Your task to perform on an android device: uninstall "Airtel Thanks" Image 0: 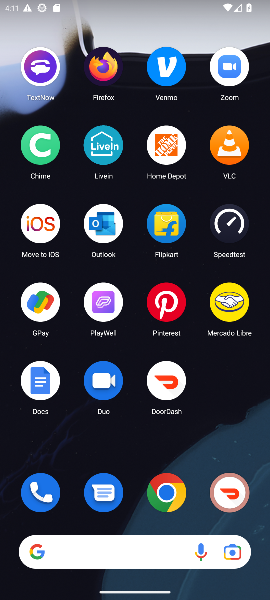
Step 0: drag from (138, 456) to (159, 98)
Your task to perform on an android device: uninstall "Airtel Thanks" Image 1: 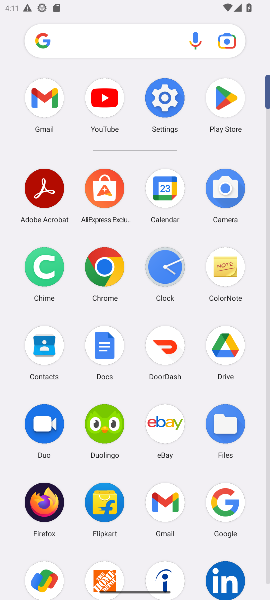
Step 1: click (238, 109)
Your task to perform on an android device: uninstall "Airtel Thanks" Image 2: 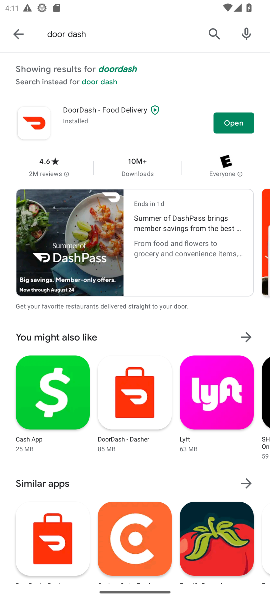
Step 2: click (211, 31)
Your task to perform on an android device: uninstall "Airtel Thanks" Image 3: 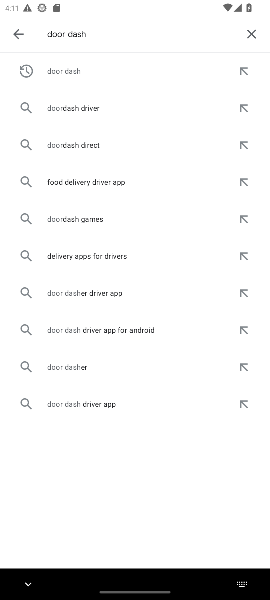
Step 3: click (254, 30)
Your task to perform on an android device: uninstall "Airtel Thanks" Image 4: 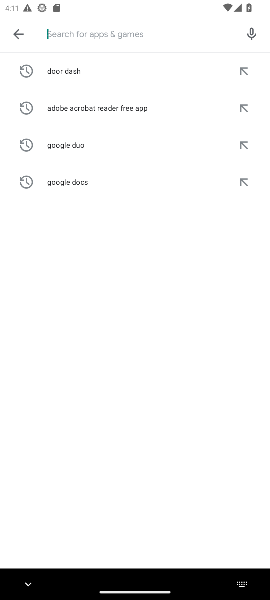
Step 4: type "airtel "
Your task to perform on an android device: uninstall "Airtel Thanks" Image 5: 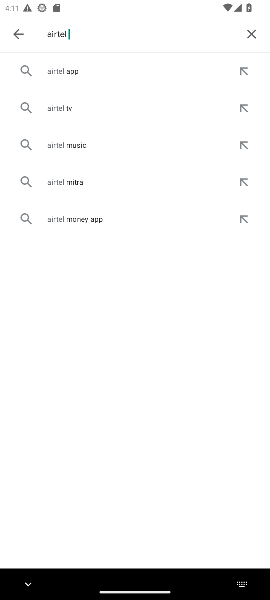
Step 5: click (107, 62)
Your task to perform on an android device: uninstall "Airtel Thanks" Image 6: 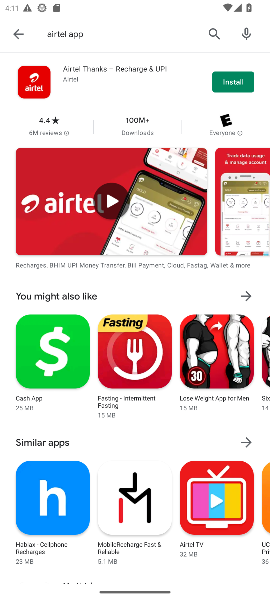
Step 6: click (217, 75)
Your task to perform on an android device: uninstall "Airtel Thanks" Image 7: 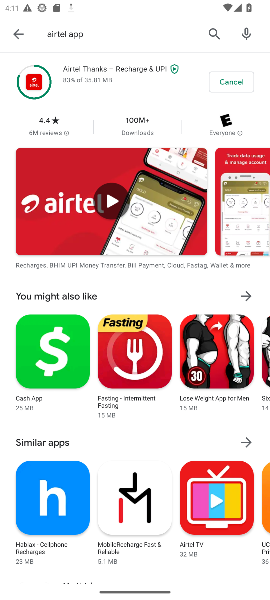
Step 7: task complete